Your task to perform on an android device: Search for seafood restaurants on Google Maps Image 0: 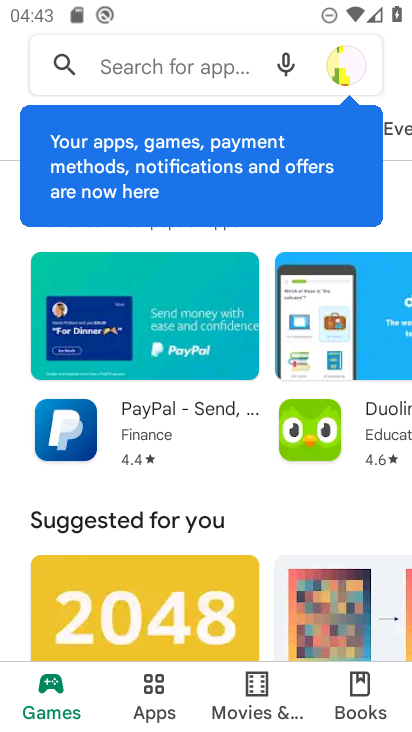
Step 0: press home button
Your task to perform on an android device: Search for seafood restaurants on Google Maps Image 1: 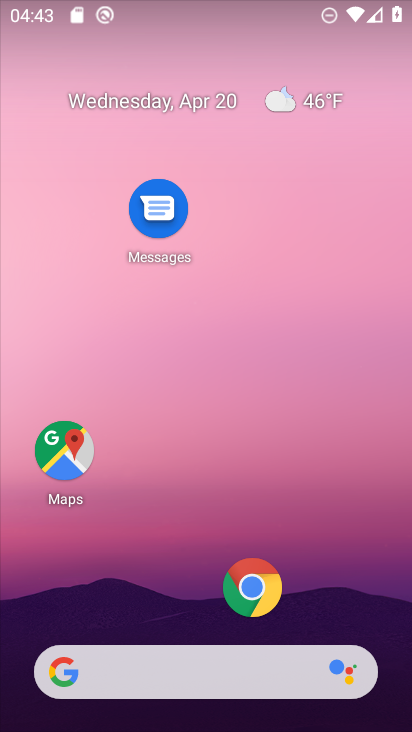
Step 1: click (68, 445)
Your task to perform on an android device: Search for seafood restaurants on Google Maps Image 2: 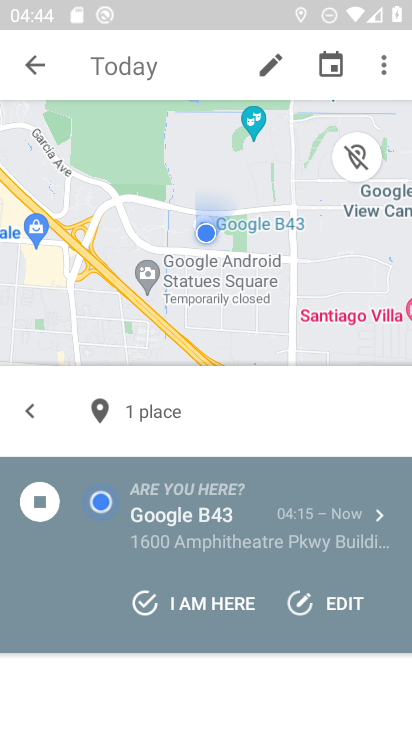
Step 2: click (27, 73)
Your task to perform on an android device: Search for seafood restaurants on Google Maps Image 3: 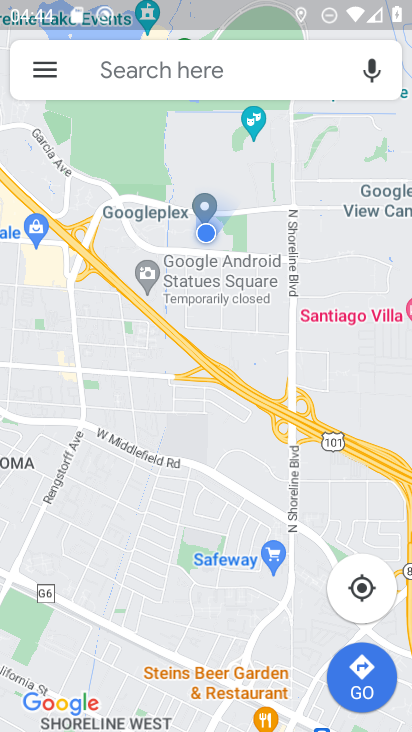
Step 3: click (161, 75)
Your task to perform on an android device: Search for seafood restaurants on Google Maps Image 4: 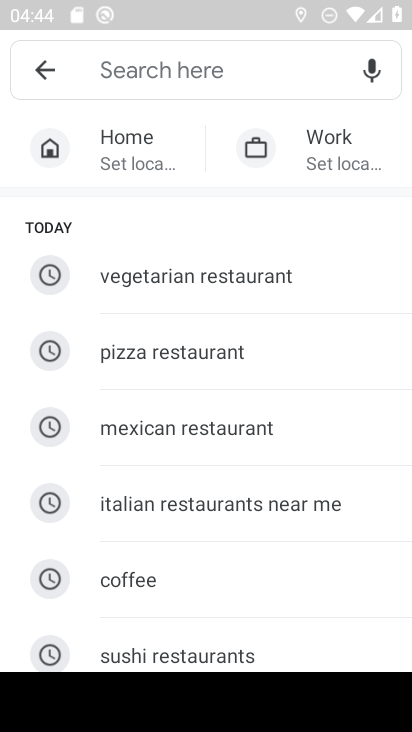
Step 4: type "seafood restaurants"
Your task to perform on an android device: Search for seafood restaurants on Google Maps Image 5: 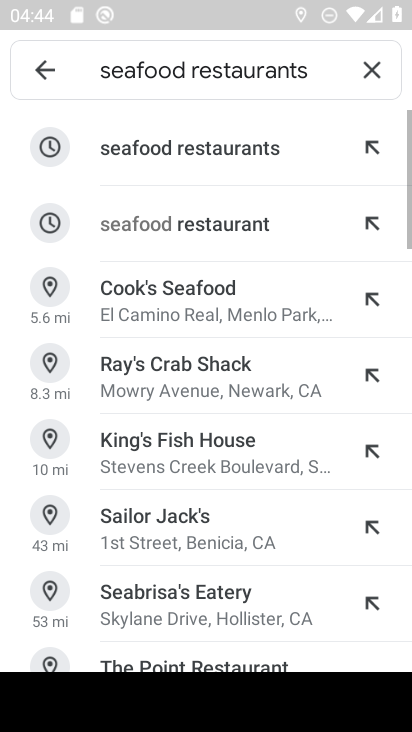
Step 5: click (208, 150)
Your task to perform on an android device: Search for seafood restaurants on Google Maps Image 6: 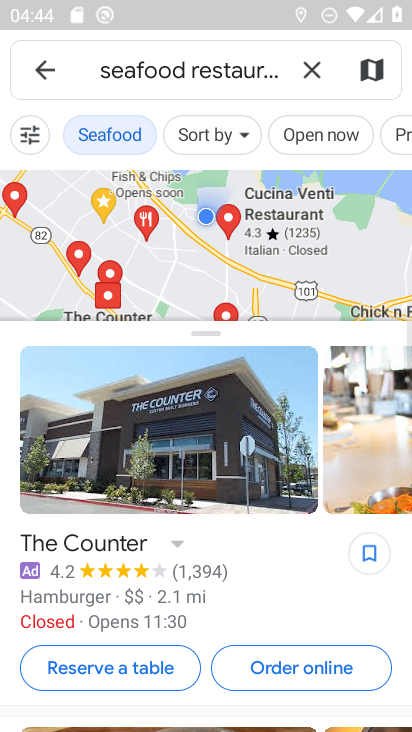
Step 6: task complete